Your task to perform on an android device: Search for hotels in Atlanta Image 0: 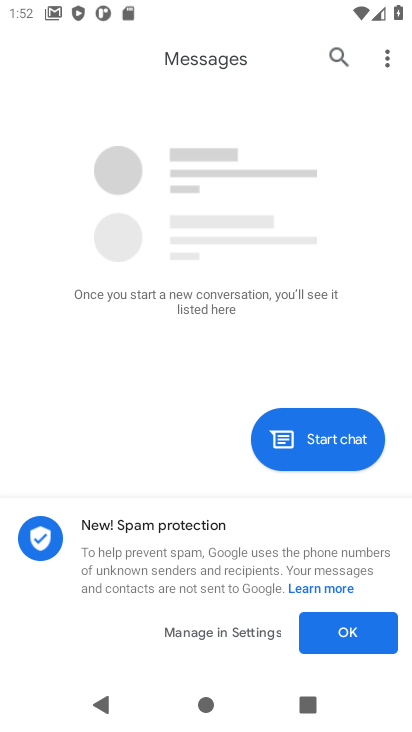
Step 0: press home button
Your task to perform on an android device: Search for hotels in Atlanta Image 1: 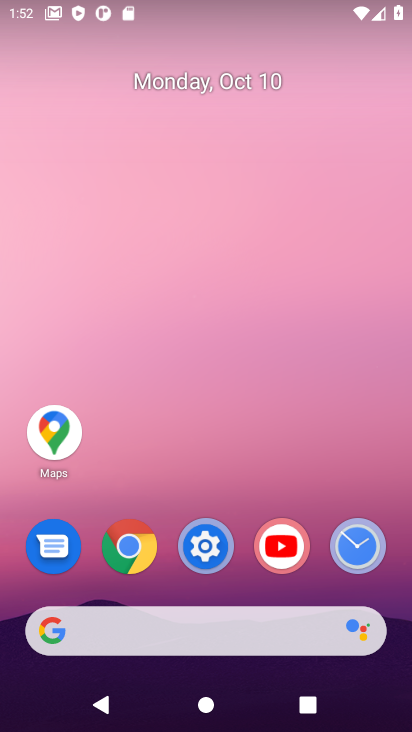
Step 1: click (133, 551)
Your task to perform on an android device: Search for hotels in Atlanta Image 2: 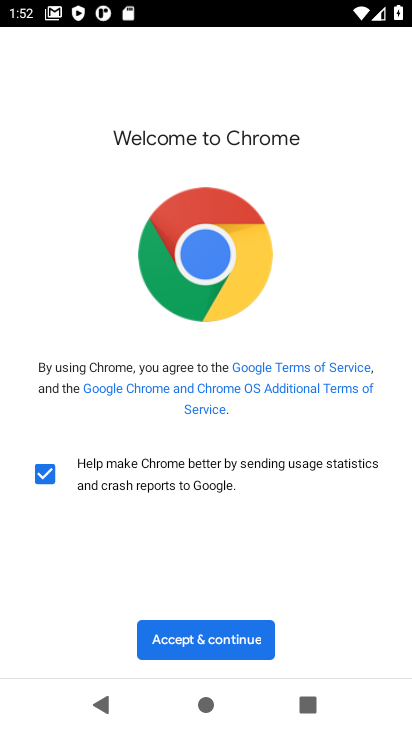
Step 2: click (228, 641)
Your task to perform on an android device: Search for hotels in Atlanta Image 3: 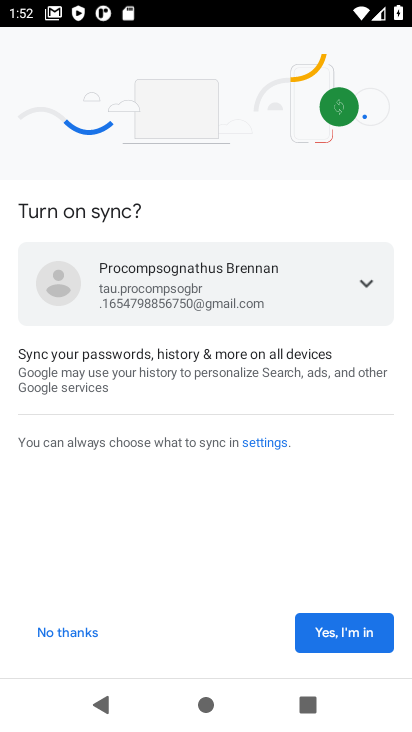
Step 3: click (310, 640)
Your task to perform on an android device: Search for hotels in Atlanta Image 4: 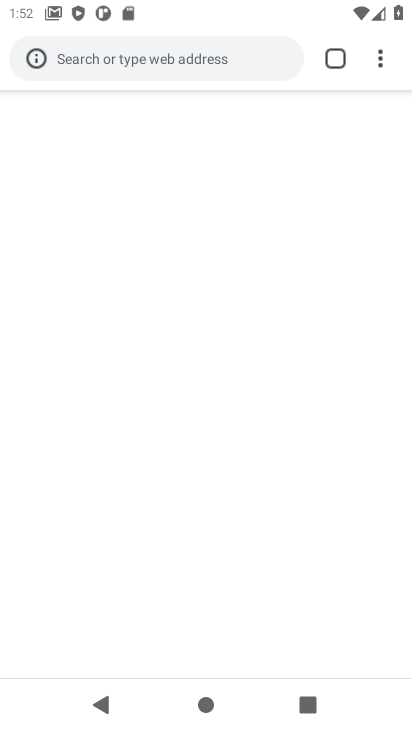
Step 4: click (123, 50)
Your task to perform on an android device: Search for hotels in Atlanta Image 5: 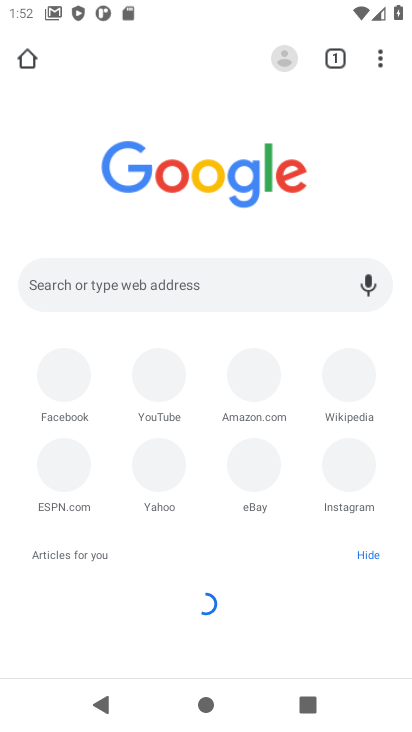
Step 5: click (156, 278)
Your task to perform on an android device: Search for hotels in Atlanta Image 6: 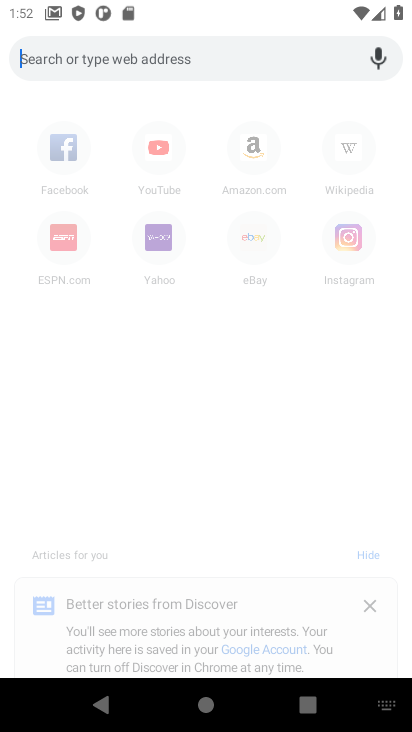
Step 6: type "Search for hotels in Atlanta"
Your task to perform on an android device: Search for hotels in Atlanta Image 7: 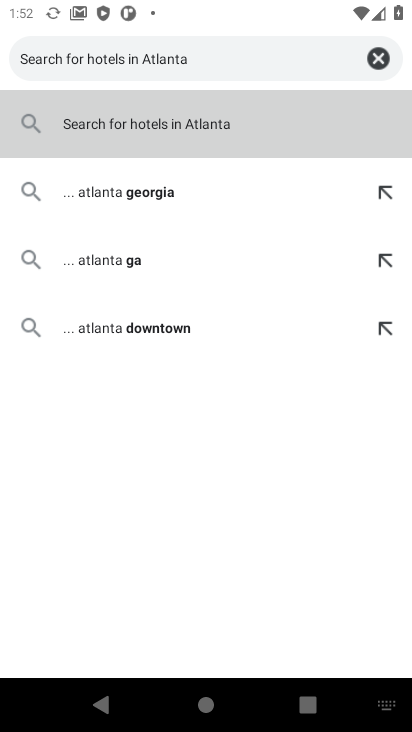
Step 7: click (213, 121)
Your task to perform on an android device: Search for hotels in Atlanta Image 8: 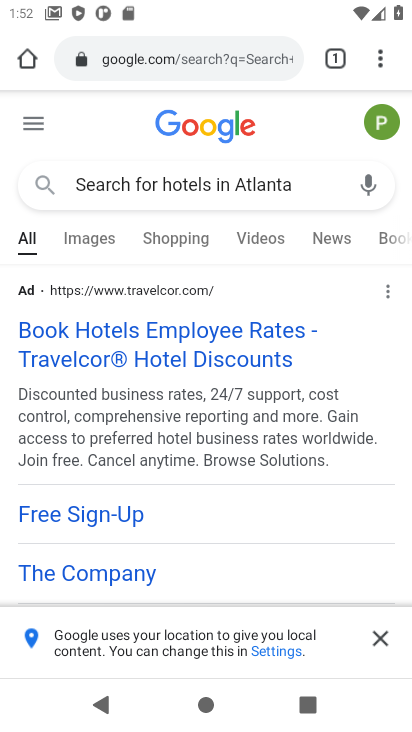
Step 8: task complete